Your task to perform on an android device: Add "corsair k70" to the cart on walmart.com, then select checkout. Image 0: 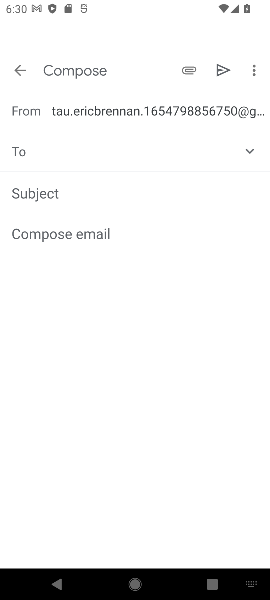
Step 0: press home button
Your task to perform on an android device: Add "corsair k70" to the cart on walmart.com, then select checkout. Image 1: 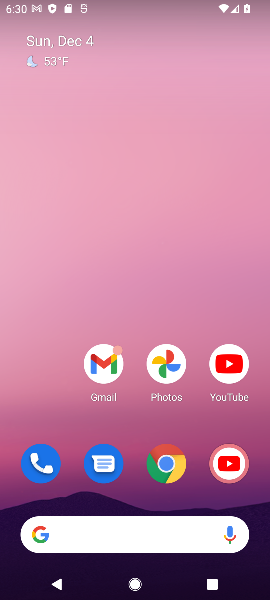
Step 1: click (176, 536)
Your task to perform on an android device: Add "corsair k70" to the cart on walmart.com, then select checkout. Image 2: 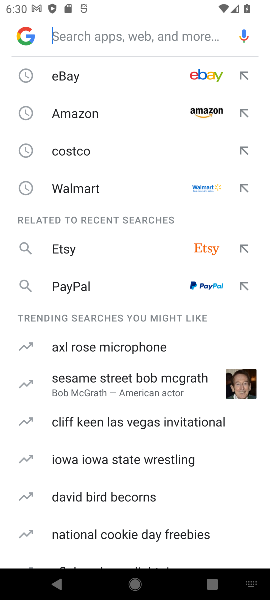
Step 2: type "wallmart"
Your task to perform on an android device: Add "corsair k70" to the cart on walmart.com, then select checkout. Image 3: 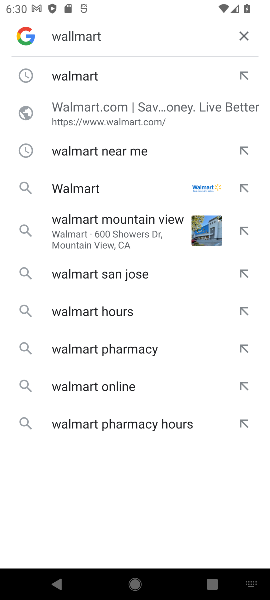
Step 3: click (98, 64)
Your task to perform on an android device: Add "corsair k70" to the cart on walmart.com, then select checkout. Image 4: 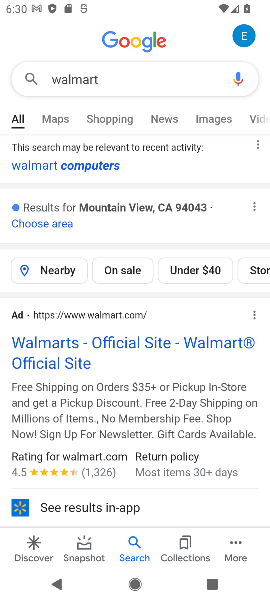
Step 4: click (60, 365)
Your task to perform on an android device: Add "corsair k70" to the cart on walmart.com, then select checkout. Image 5: 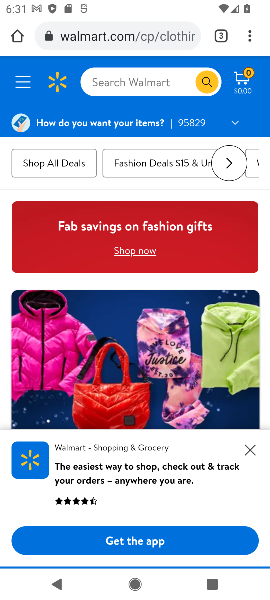
Step 5: click (123, 79)
Your task to perform on an android device: Add "corsair k70" to the cart on walmart.com, then select checkout. Image 6: 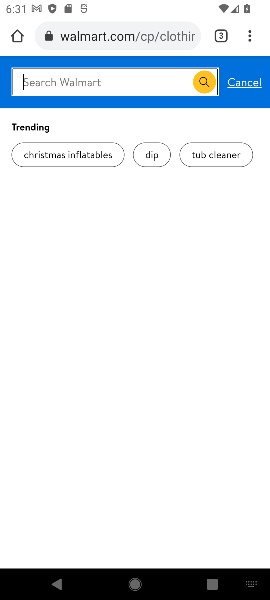
Step 6: click (223, 89)
Your task to perform on an android device: Add "corsair k70" to the cart on walmart.com, then select checkout. Image 7: 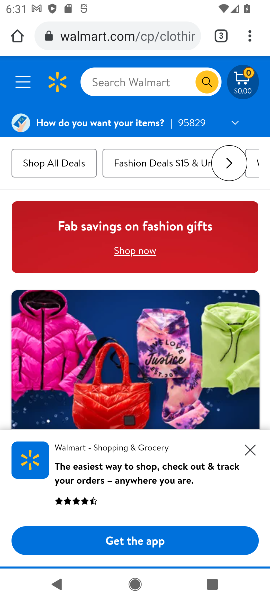
Step 7: click (151, 88)
Your task to perform on an android device: Add "corsair k70" to the cart on walmart.com, then select checkout. Image 8: 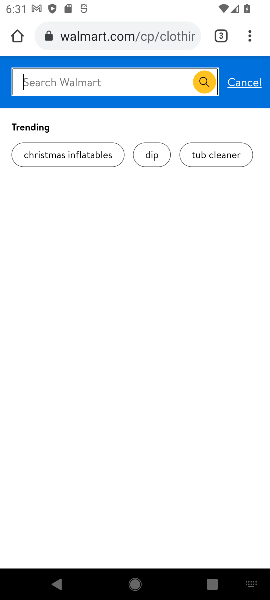
Step 8: type "corsair k70"
Your task to perform on an android device: Add "corsair k70" to the cart on walmart.com, then select checkout. Image 9: 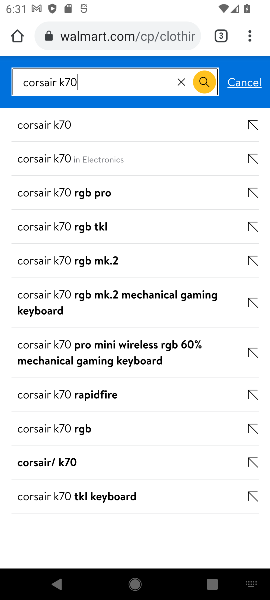
Step 9: click (60, 123)
Your task to perform on an android device: Add "corsair k70" to the cart on walmart.com, then select checkout. Image 10: 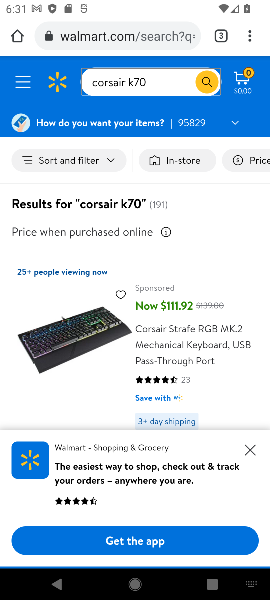
Step 10: click (246, 450)
Your task to perform on an android device: Add "corsair k70" to the cart on walmart.com, then select checkout. Image 11: 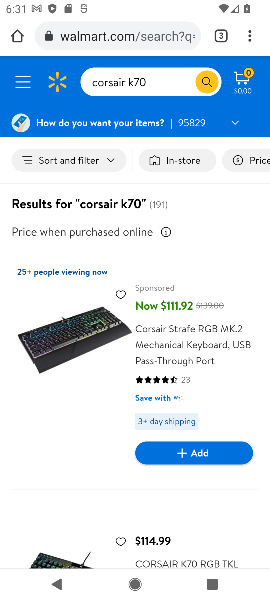
Step 11: click (246, 450)
Your task to perform on an android device: Add "corsair k70" to the cart on walmart.com, then select checkout. Image 12: 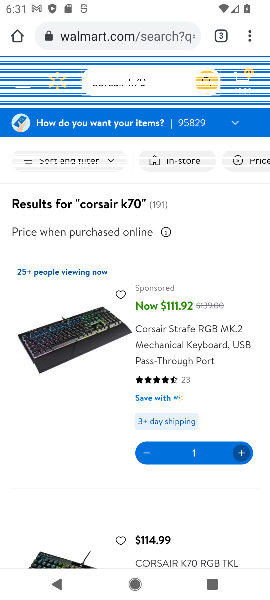
Step 12: task complete